Your task to perform on an android device: What is the recent news? Image 0: 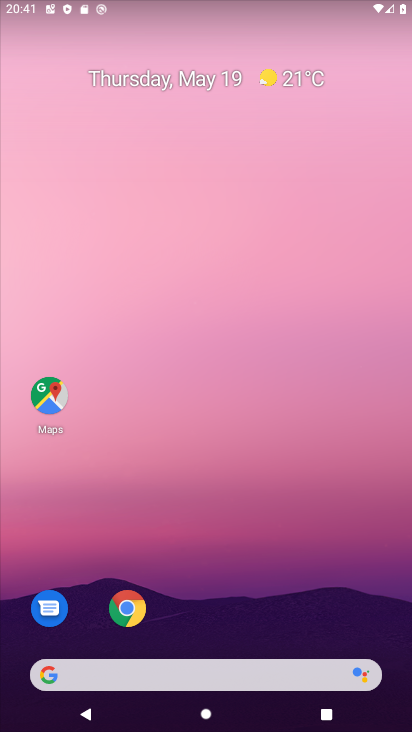
Step 0: click (185, 677)
Your task to perform on an android device: What is the recent news? Image 1: 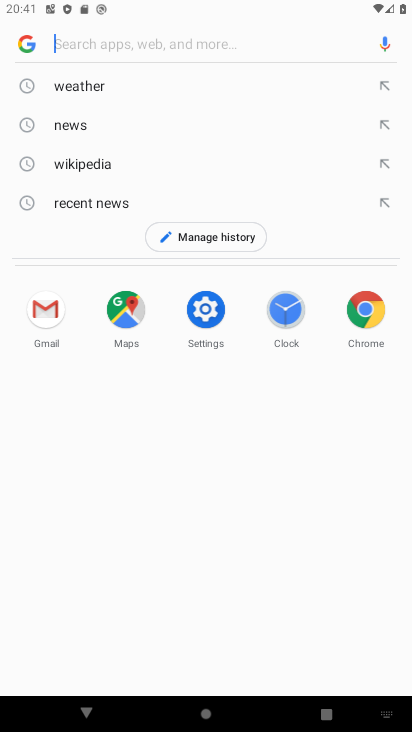
Step 1: click (56, 123)
Your task to perform on an android device: What is the recent news? Image 2: 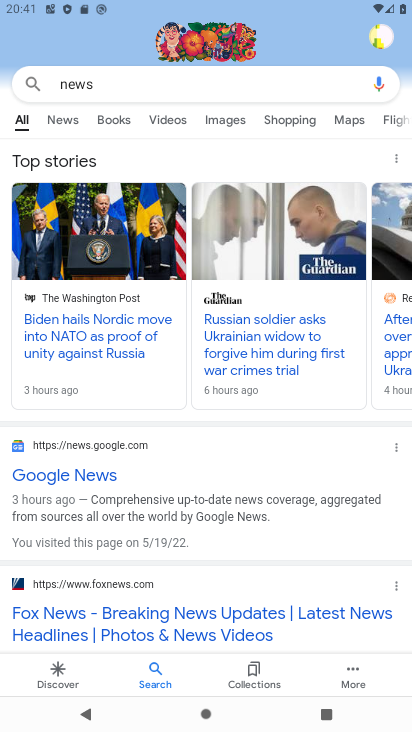
Step 2: task complete